Your task to perform on an android device: What is the recent news? Image 0: 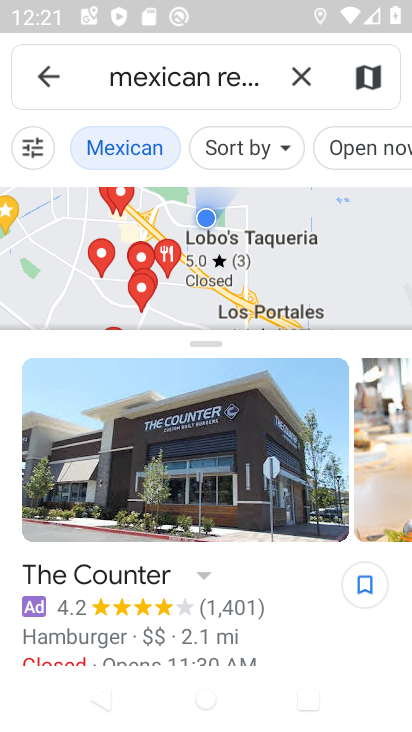
Step 0: press home button
Your task to perform on an android device: What is the recent news? Image 1: 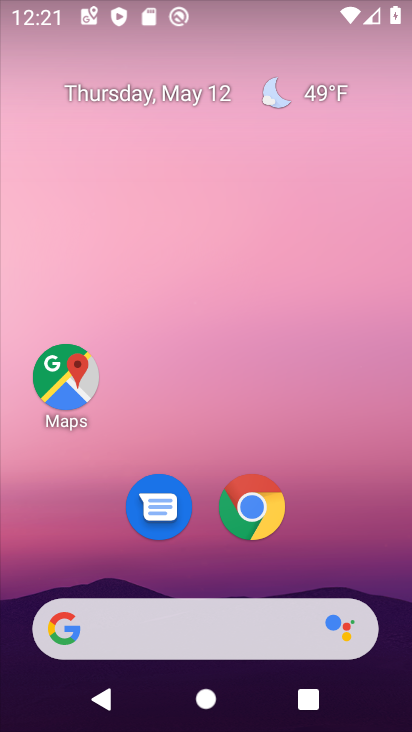
Step 1: click (187, 628)
Your task to perform on an android device: What is the recent news? Image 2: 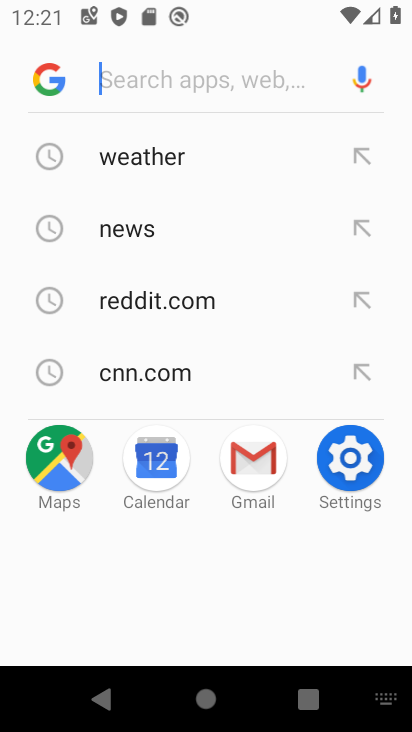
Step 2: type "recent news"
Your task to perform on an android device: What is the recent news? Image 3: 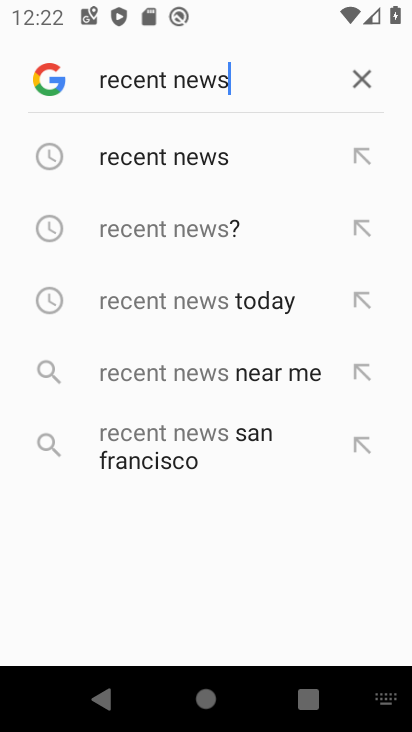
Step 3: click (202, 177)
Your task to perform on an android device: What is the recent news? Image 4: 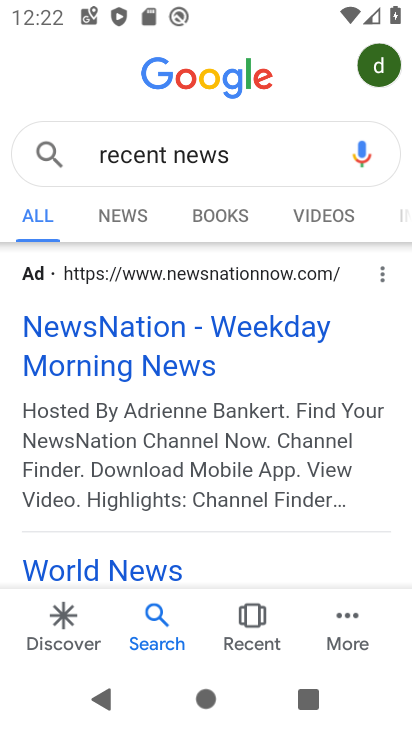
Step 4: click (114, 215)
Your task to perform on an android device: What is the recent news? Image 5: 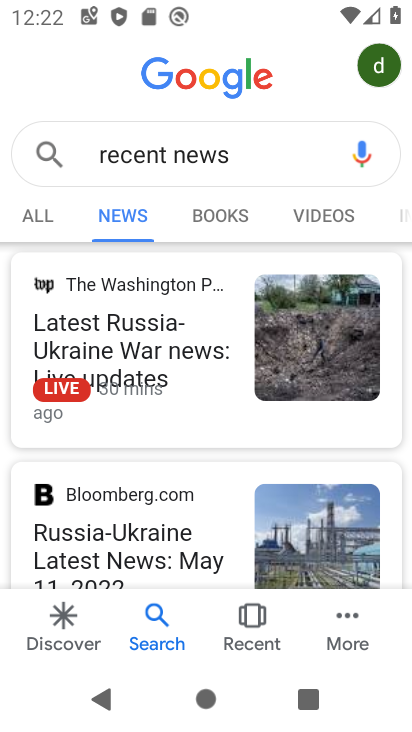
Step 5: task complete